Your task to perform on an android device: Open the calendar and show me this week's events? Image 0: 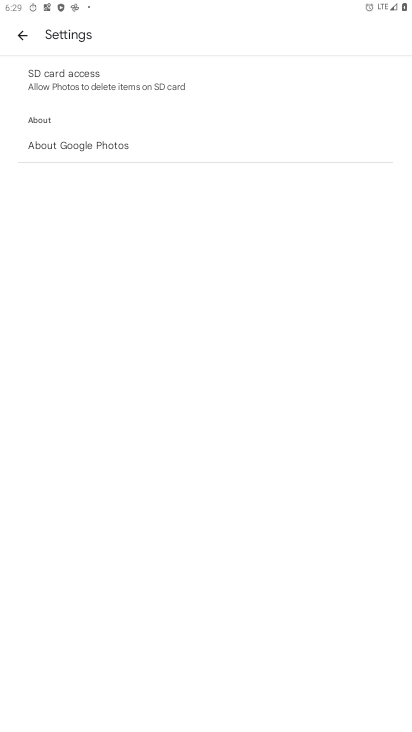
Step 0: press home button
Your task to perform on an android device: Open the calendar and show me this week's events? Image 1: 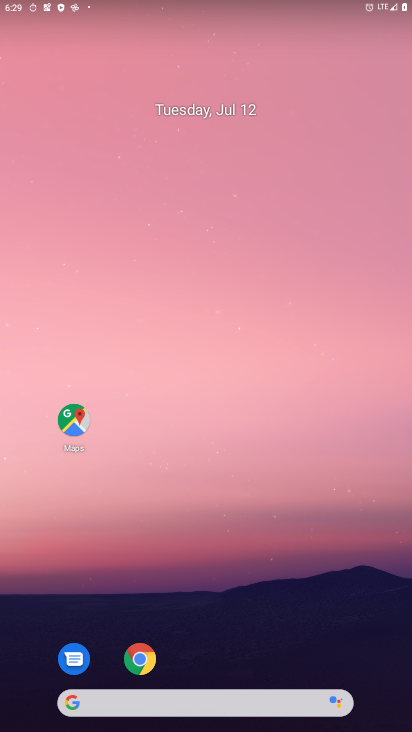
Step 1: drag from (218, 311) to (279, 28)
Your task to perform on an android device: Open the calendar and show me this week's events? Image 2: 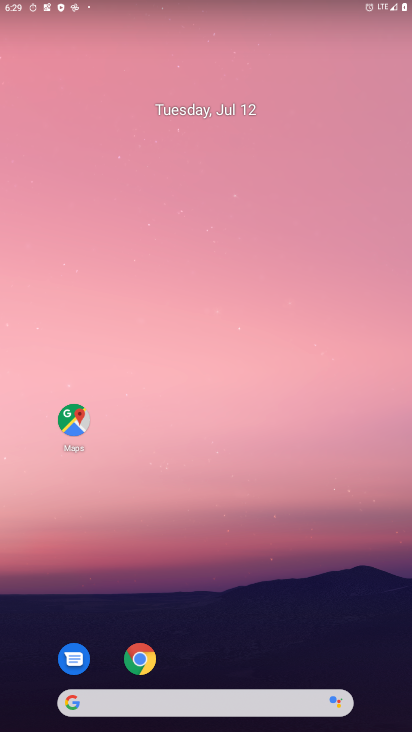
Step 2: click (253, 597)
Your task to perform on an android device: Open the calendar and show me this week's events? Image 3: 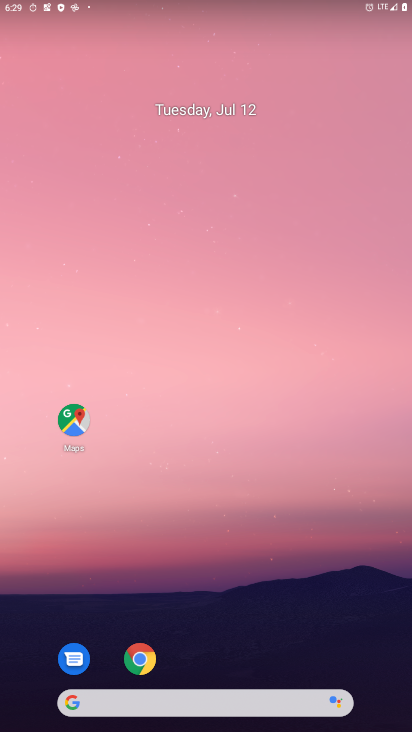
Step 3: drag from (253, 340) to (294, 54)
Your task to perform on an android device: Open the calendar and show me this week's events? Image 4: 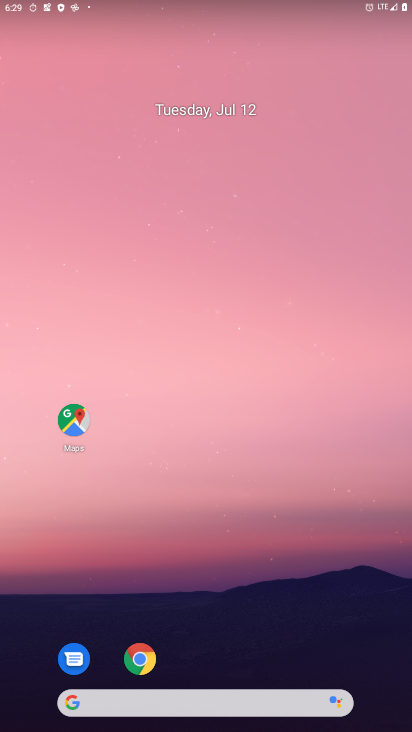
Step 4: drag from (222, 627) to (230, 96)
Your task to perform on an android device: Open the calendar and show me this week's events? Image 5: 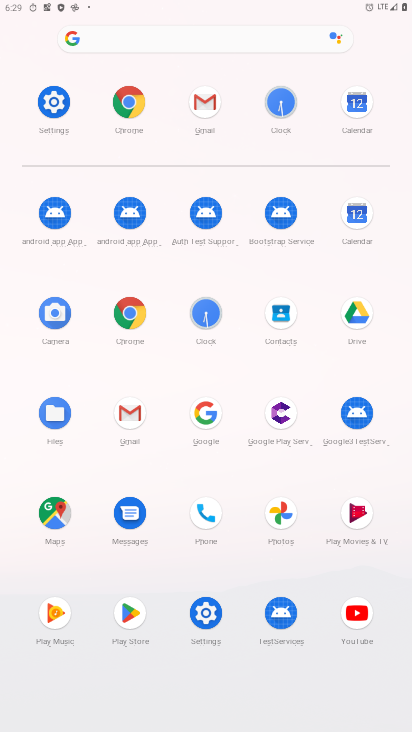
Step 5: click (349, 237)
Your task to perform on an android device: Open the calendar and show me this week's events? Image 6: 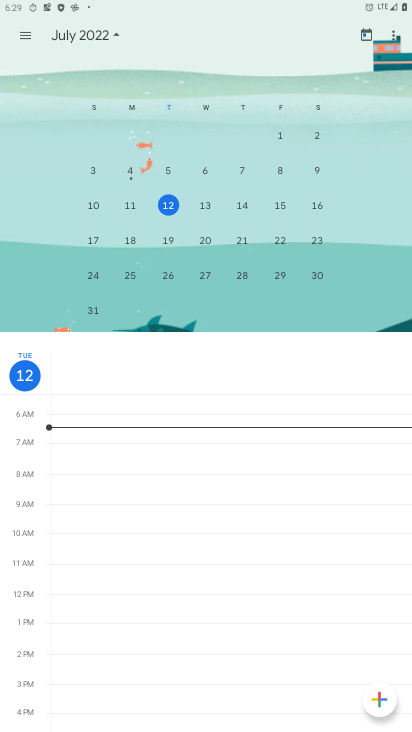
Step 6: click (27, 43)
Your task to perform on an android device: Open the calendar and show me this week's events? Image 7: 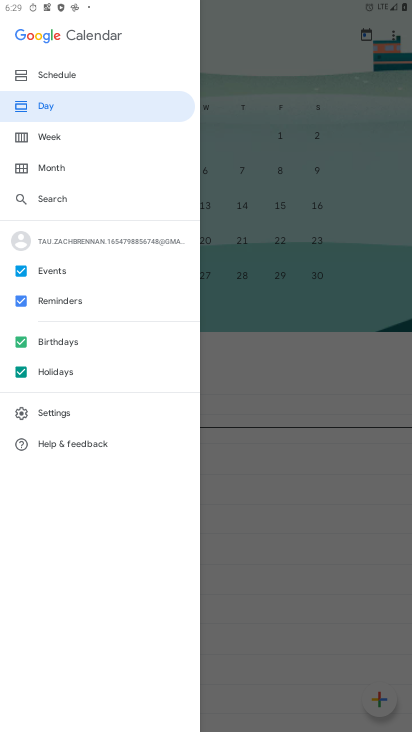
Step 7: click (43, 140)
Your task to perform on an android device: Open the calendar and show me this week's events? Image 8: 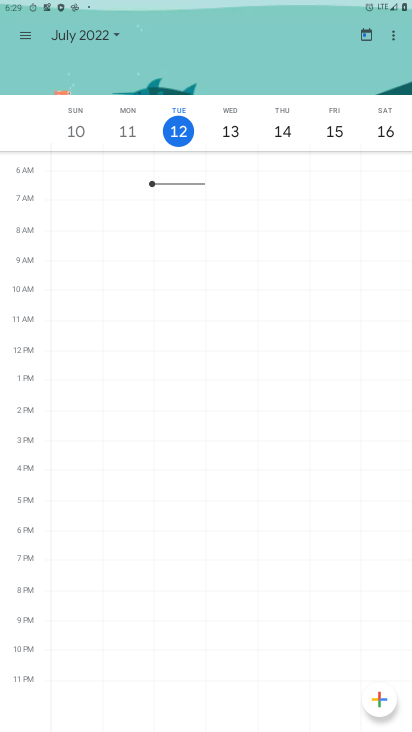
Step 8: task complete